Your task to perform on an android device: Show me the alarms in the clock app Image 0: 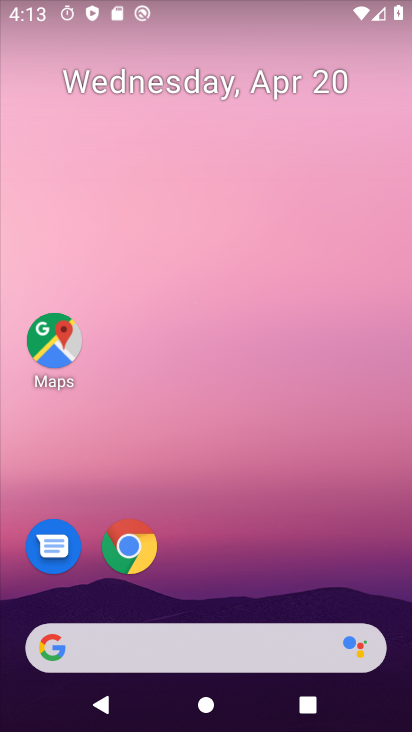
Step 0: drag from (327, 541) to (358, 85)
Your task to perform on an android device: Show me the alarms in the clock app Image 1: 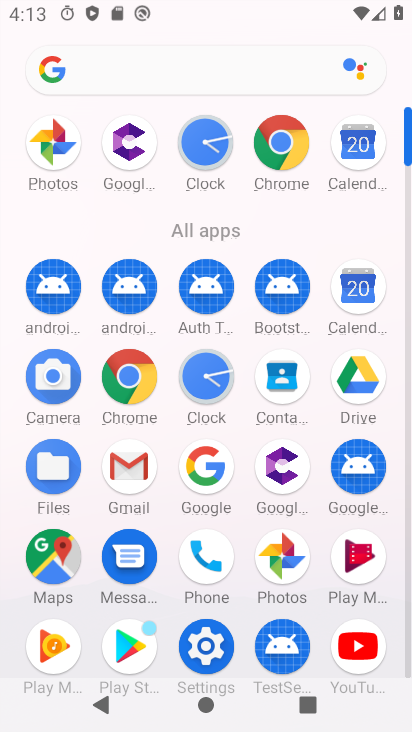
Step 1: click (211, 139)
Your task to perform on an android device: Show me the alarms in the clock app Image 2: 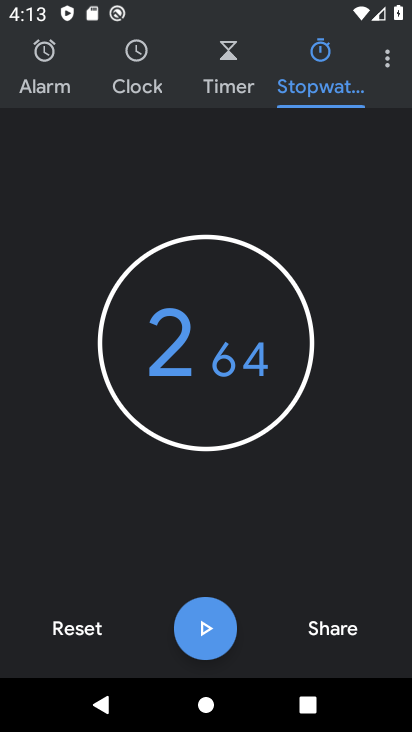
Step 2: click (52, 58)
Your task to perform on an android device: Show me the alarms in the clock app Image 3: 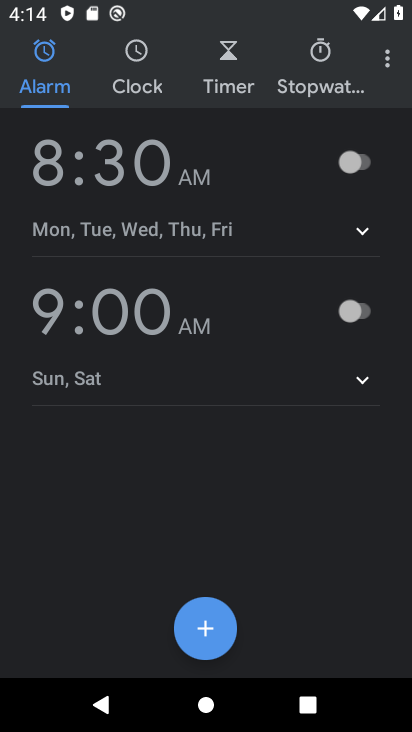
Step 3: task complete